Your task to perform on an android device: set an alarm Image 0: 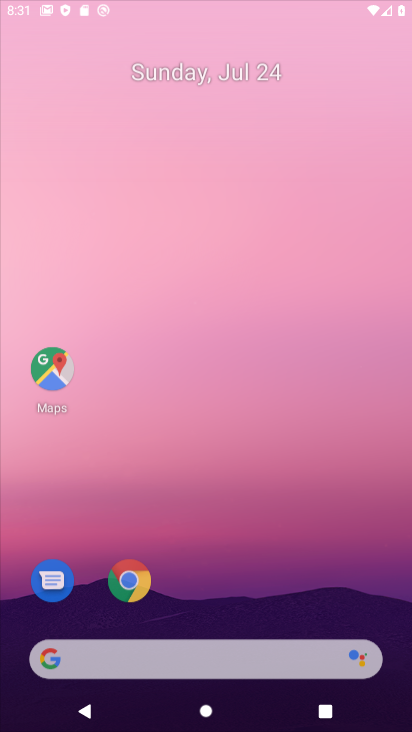
Step 0: press home button
Your task to perform on an android device: set an alarm Image 1: 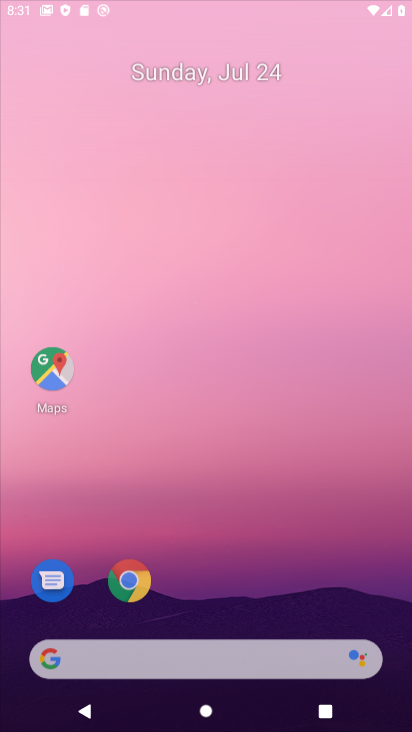
Step 1: click (227, 69)
Your task to perform on an android device: set an alarm Image 2: 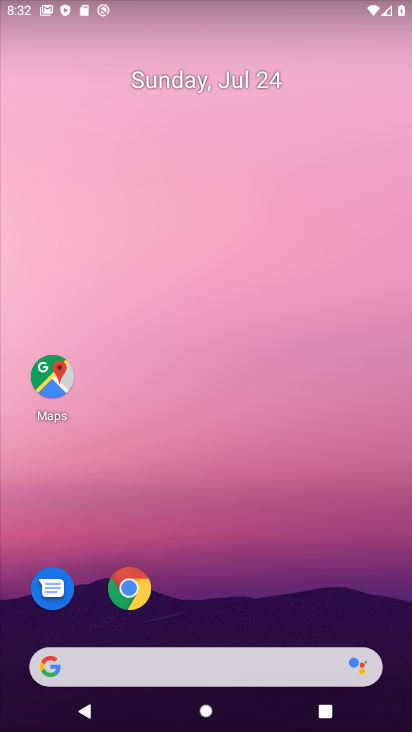
Step 2: drag from (202, 625) to (231, 0)
Your task to perform on an android device: set an alarm Image 3: 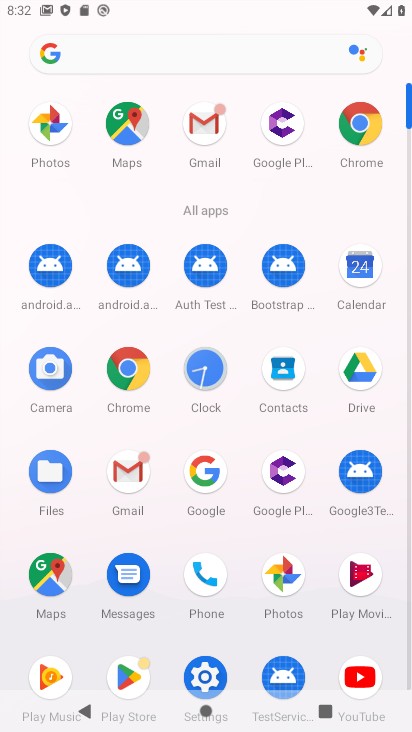
Step 3: click (199, 362)
Your task to perform on an android device: set an alarm Image 4: 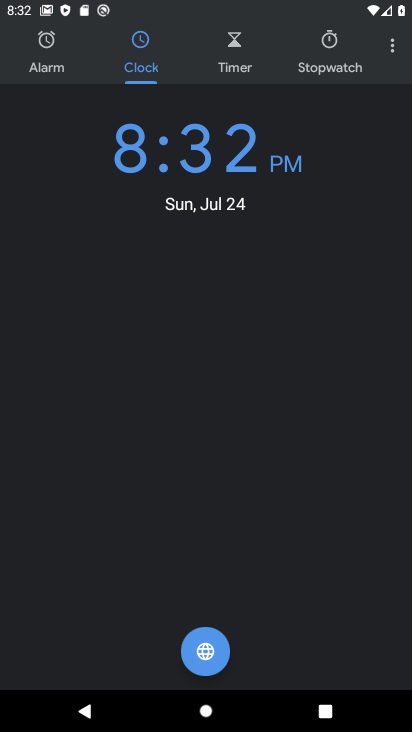
Step 4: click (45, 38)
Your task to perform on an android device: set an alarm Image 5: 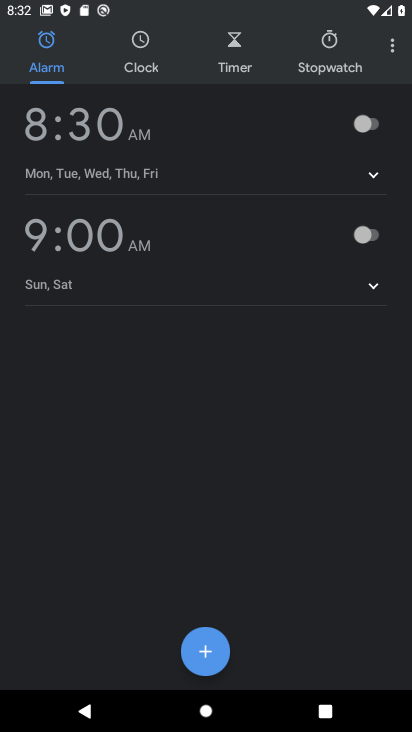
Step 5: click (368, 121)
Your task to perform on an android device: set an alarm Image 6: 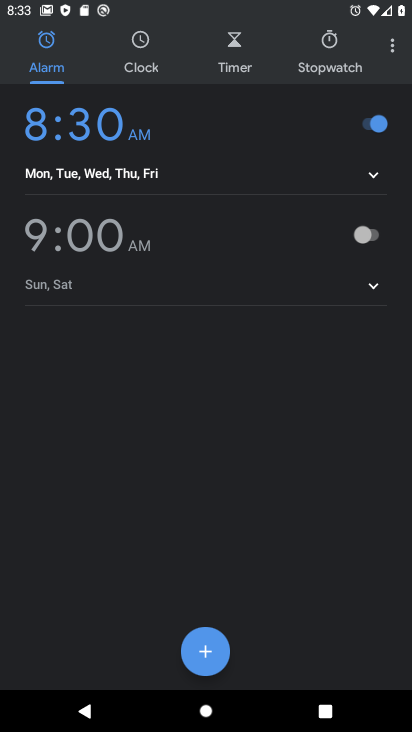
Step 6: task complete